Your task to perform on an android device: toggle show notifications on the lock screen Image 0: 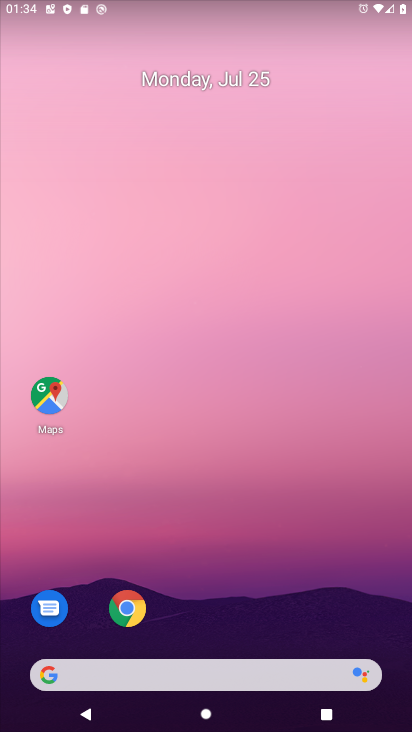
Step 0: drag from (245, 655) to (214, 120)
Your task to perform on an android device: toggle show notifications on the lock screen Image 1: 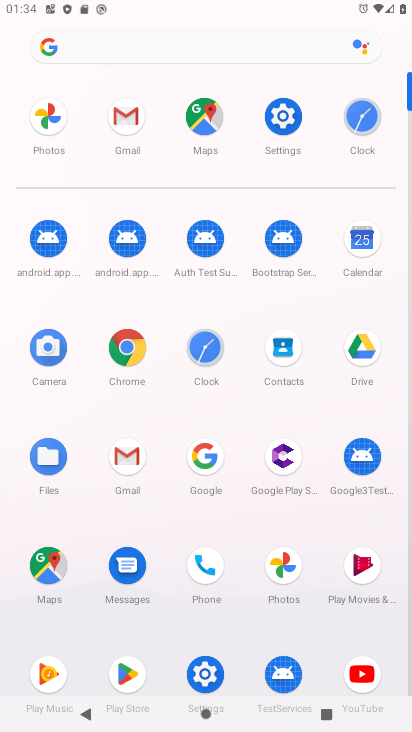
Step 1: click (274, 120)
Your task to perform on an android device: toggle show notifications on the lock screen Image 2: 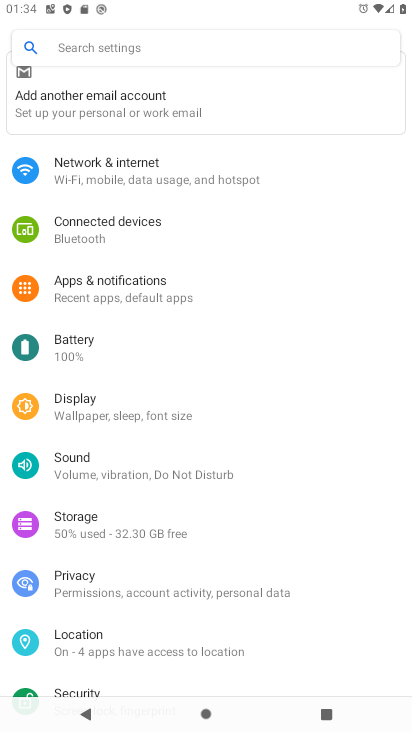
Step 2: click (87, 280)
Your task to perform on an android device: toggle show notifications on the lock screen Image 3: 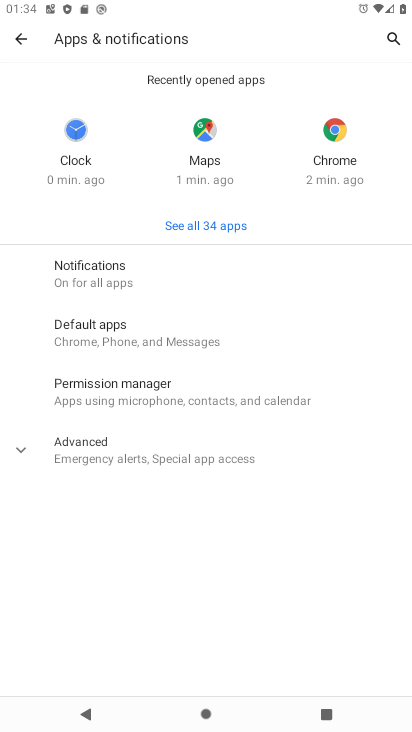
Step 3: click (87, 280)
Your task to perform on an android device: toggle show notifications on the lock screen Image 4: 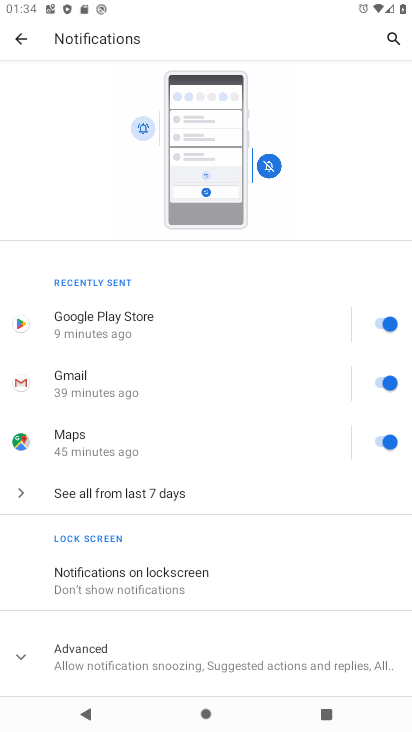
Step 4: click (89, 595)
Your task to perform on an android device: toggle show notifications on the lock screen Image 5: 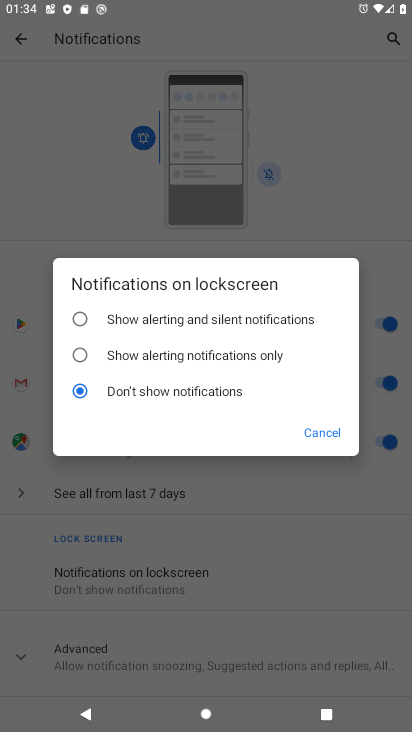
Step 5: click (191, 325)
Your task to perform on an android device: toggle show notifications on the lock screen Image 6: 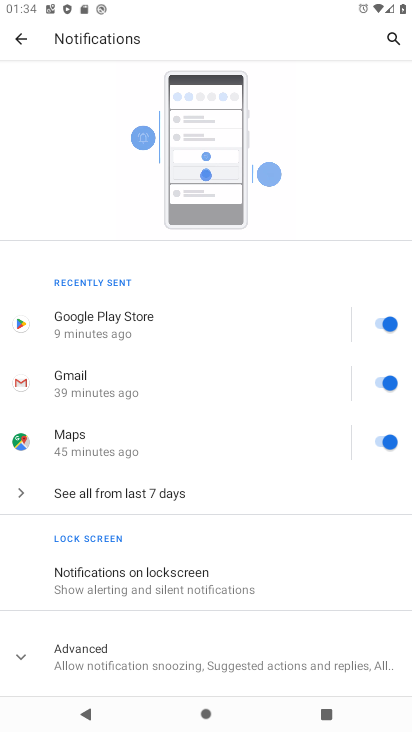
Step 6: task complete